Your task to perform on an android device: set default search engine in the chrome app Image 0: 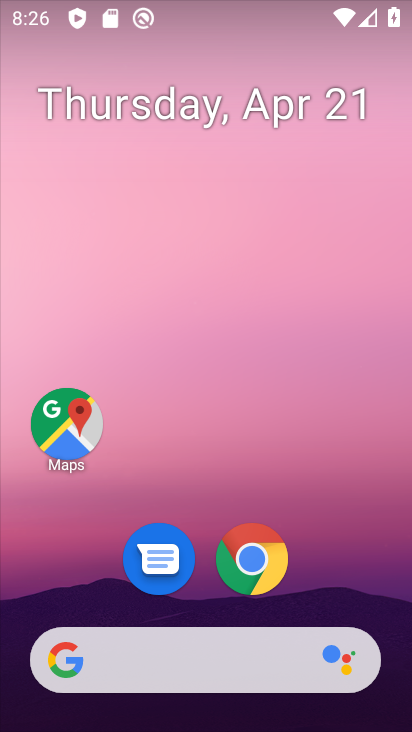
Step 0: click (255, 570)
Your task to perform on an android device: set default search engine in the chrome app Image 1: 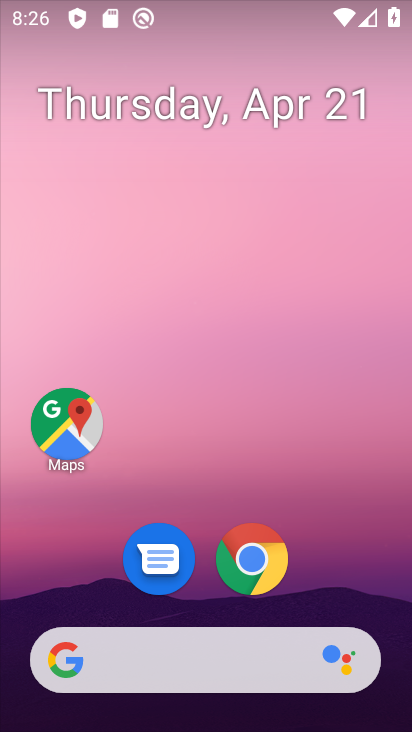
Step 1: click (252, 533)
Your task to perform on an android device: set default search engine in the chrome app Image 2: 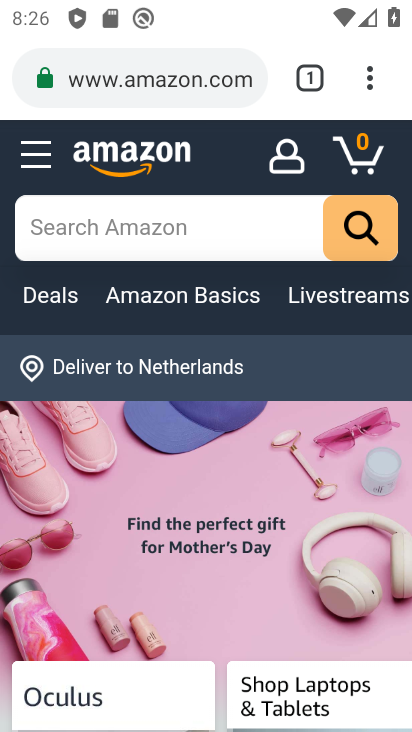
Step 2: click (177, 91)
Your task to perform on an android device: set default search engine in the chrome app Image 3: 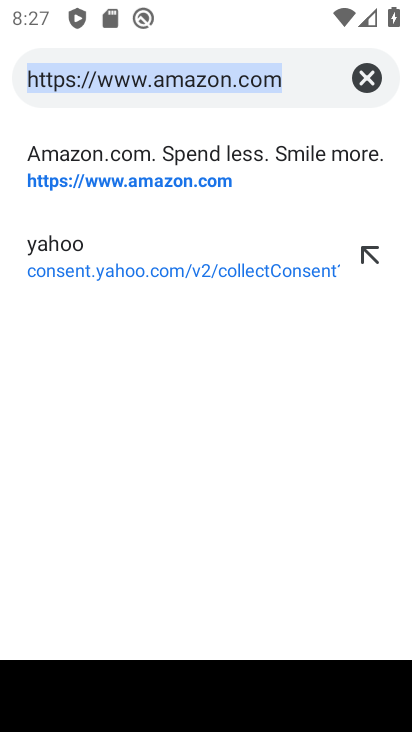
Step 3: click (354, 84)
Your task to perform on an android device: set default search engine in the chrome app Image 4: 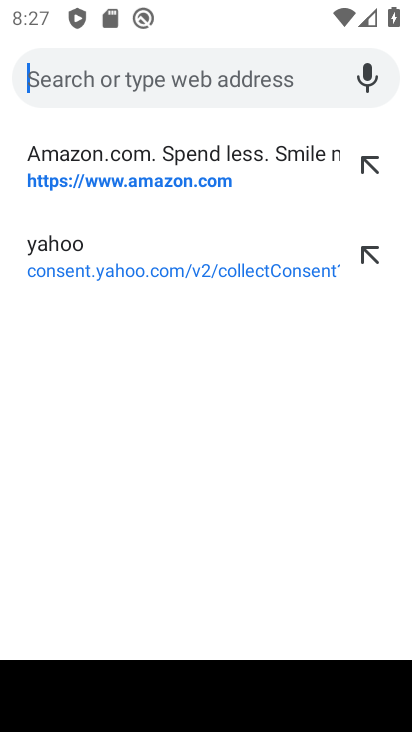
Step 4: press back button
Your task to perform on an android device: set default search engine in the chrome app Image 5: 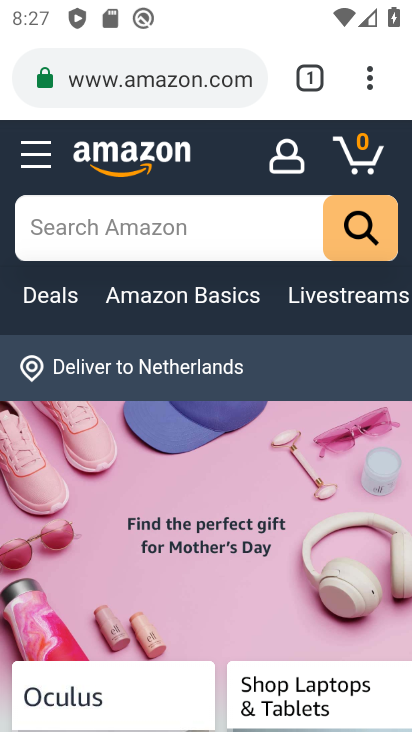
Step 5: drag from (367, 79) to (226, 616)
Your task to perform on an android device: set default search engine in the chrome app Image 6: 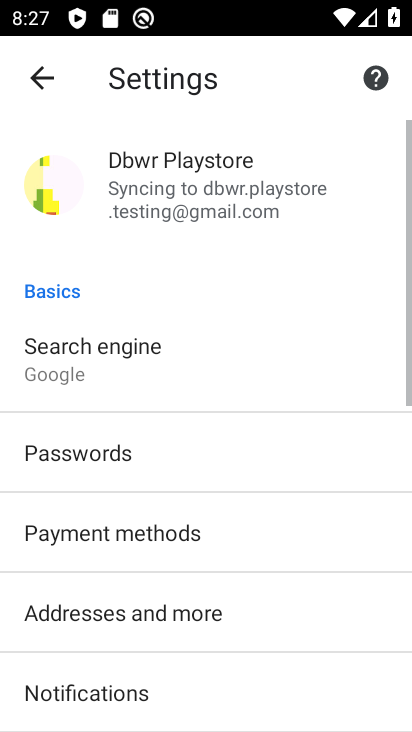
Step 6: click (148, 369)
Your task to perform on an android device: set default search engine in the chrome app Image 7: 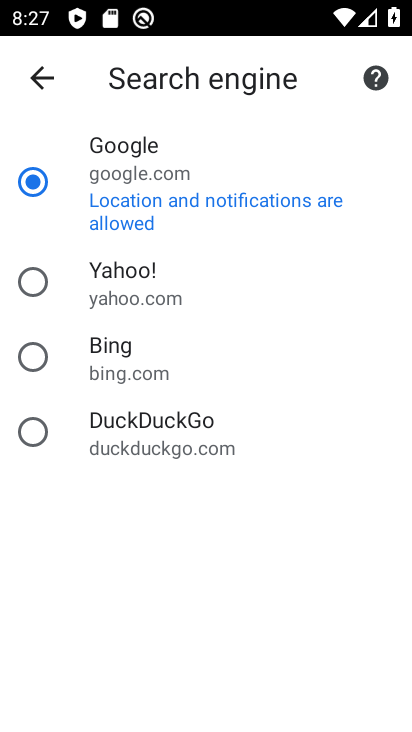
Step 7: click (163, 305)
Your task to perform on an android device: set default search engine in the chrome app Image 8: 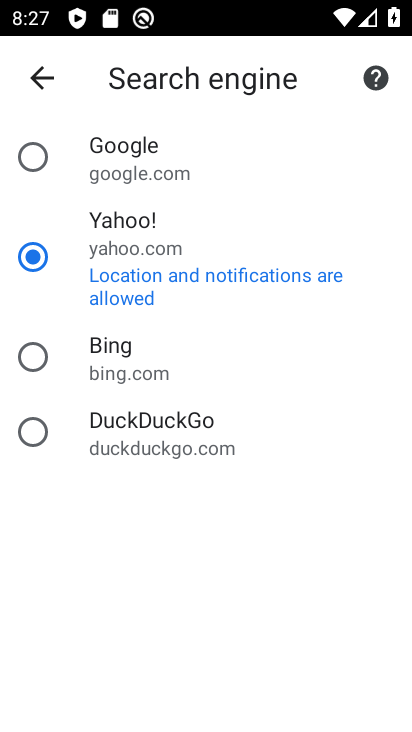
Step 8: task complete